Your task to perform on an android device: Go to Android settings Image 0: 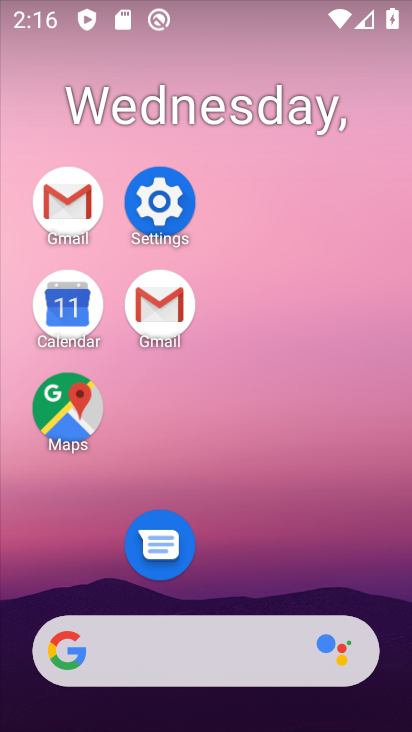
Step 0: click (178, 233)
Your task to perform on an android device: Go to Android settings Image 1: 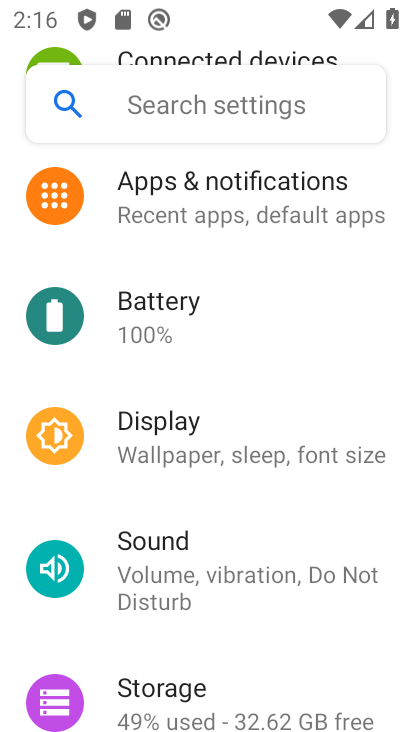
Step 1: task complete